Your task to perform on an android device: toggle location history Image 0: 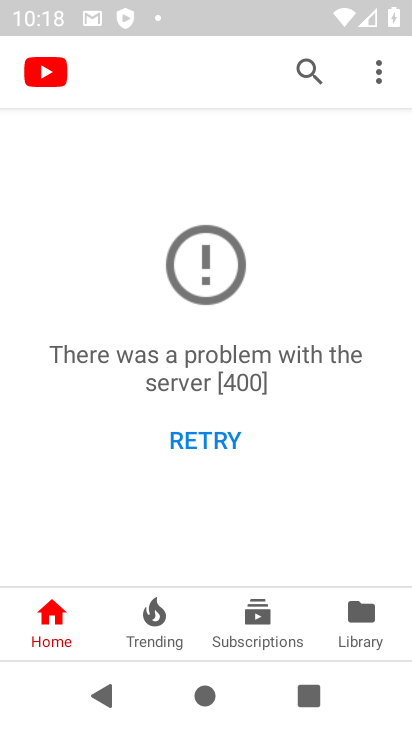
Step 0: press back button
Your task to perform on an android device: toggle location history Image 1: 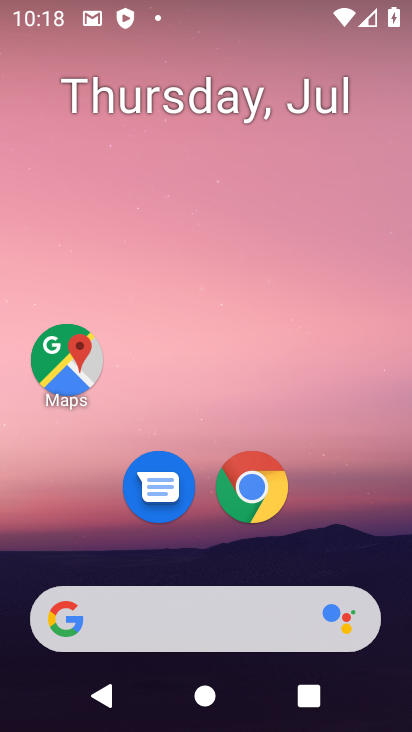
Step 1: drag from (251, 561) to (304, 29)
Your task to perform on an android device: toggle location history Image 2: 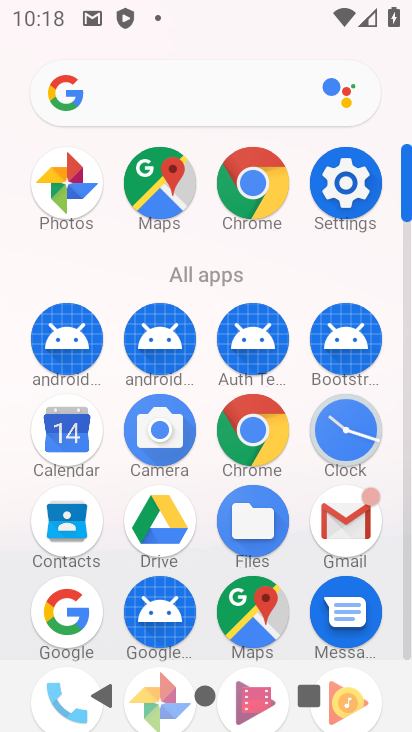
Step 2: click (369, 169)
Your task to perform on an android device: toggle location history Image 3: 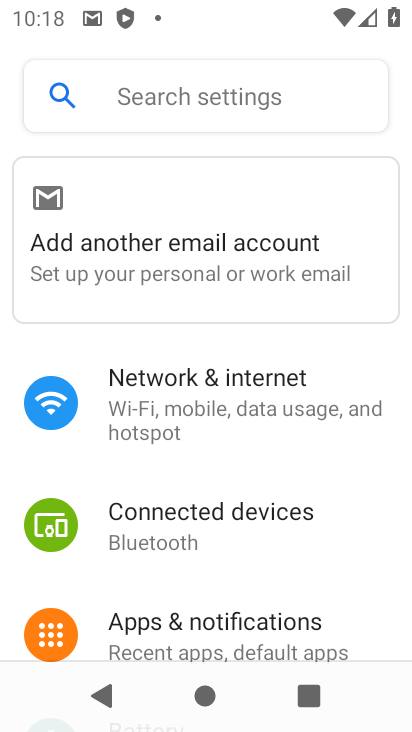
Step 3: drag from (146, 609) to (278, 166)
Your task to perform on an android device: toggle location history Image 4: 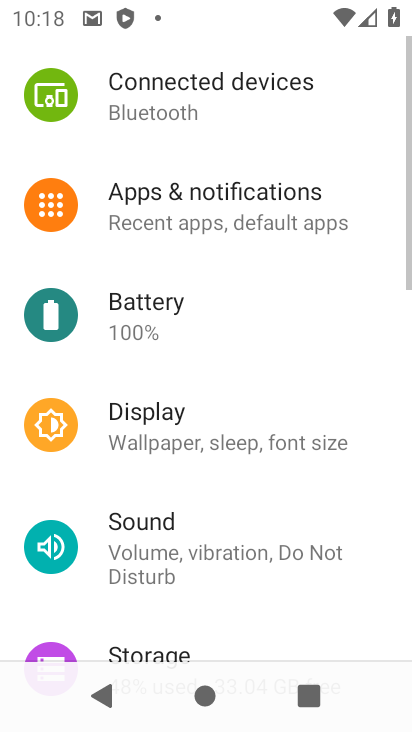
Step 4: drag from (205, 631) to (338, 84)
Your task to perform on an android device: toggle location history Image 5: 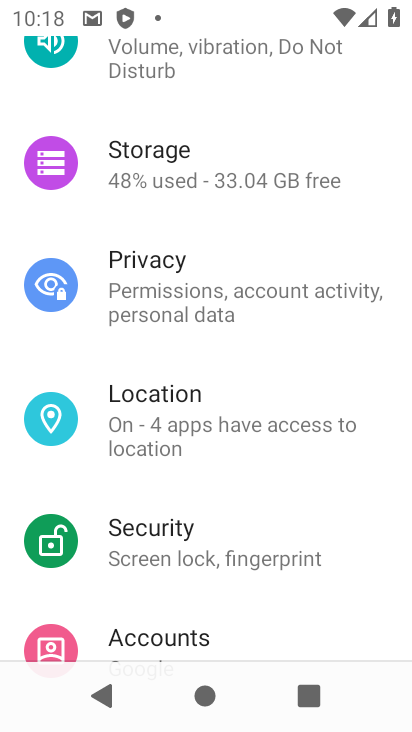
Step 5: click (175, 421)
Your task to perform on an android device: toggle location history Image 6: 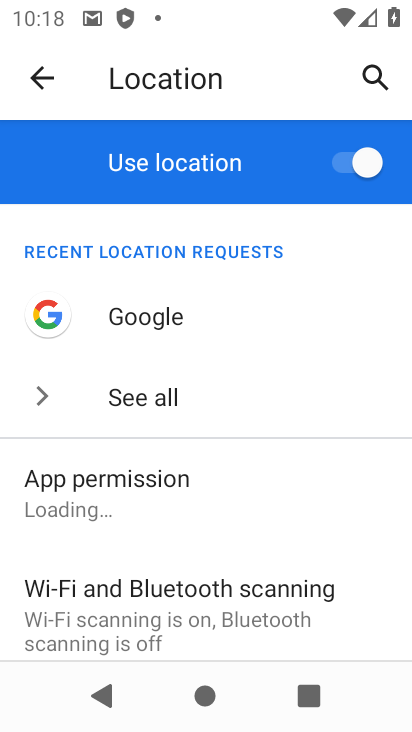
Step 6: drag from (153, 601) to (266, 231)
Your task to perform on an android device: toggle location history Image 7: 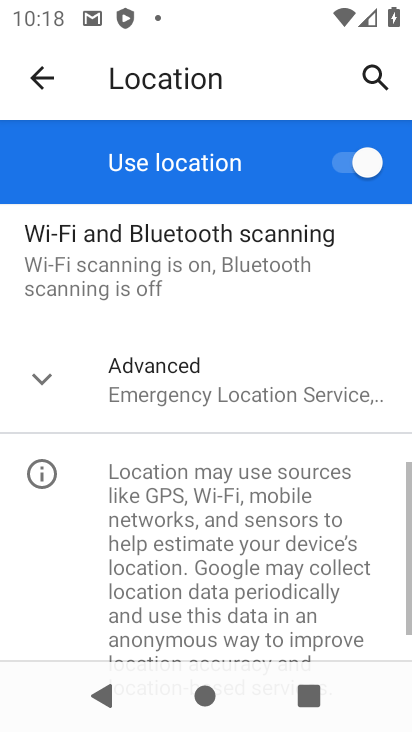
Step 7: click (141, 357)
Your task to perform on an android device: toggle location history Image 8: 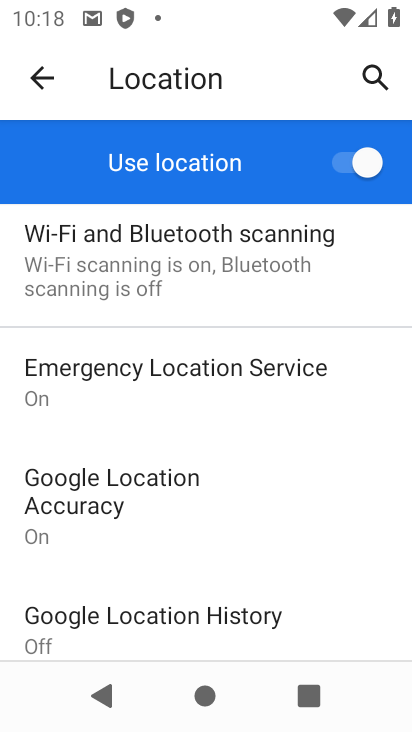
Step 8: click (212, 627)
Your task to perform on an android device: toggle location history Image 9: 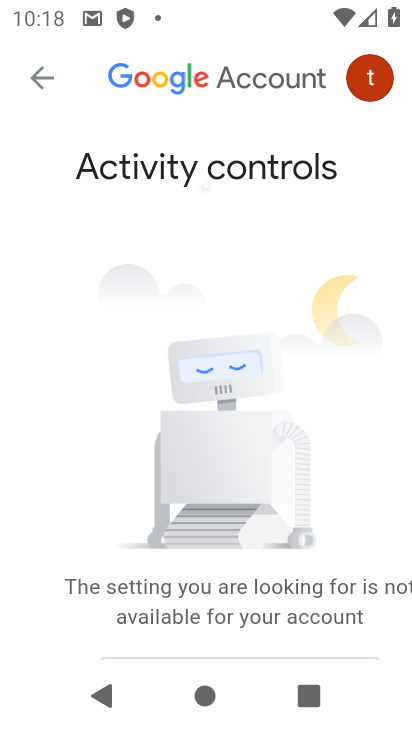
Step 9: task complete